Your task to perform on an android device: find photos in the google photos app Image 0: 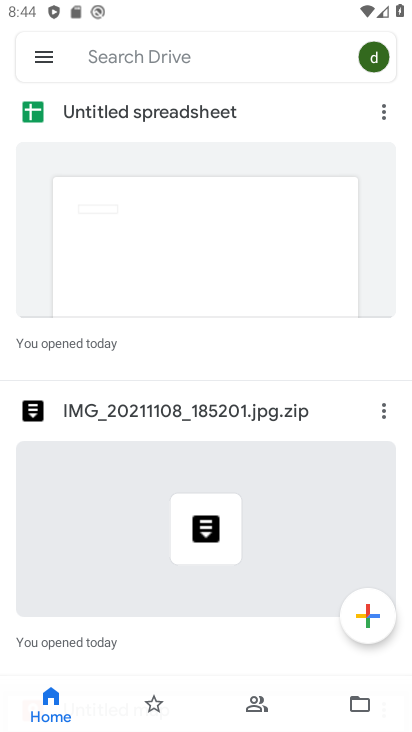
Step 0: press home button
Your task to perform on an android device: find photos in the google photos app Image 1: 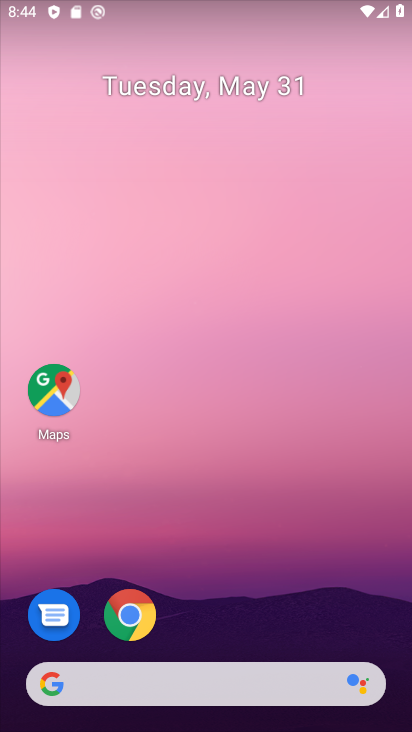
Step 1: drag from (297, 582) to (227, 151)
Your task to perform on an android device: find photos in the google photos app Image 2: 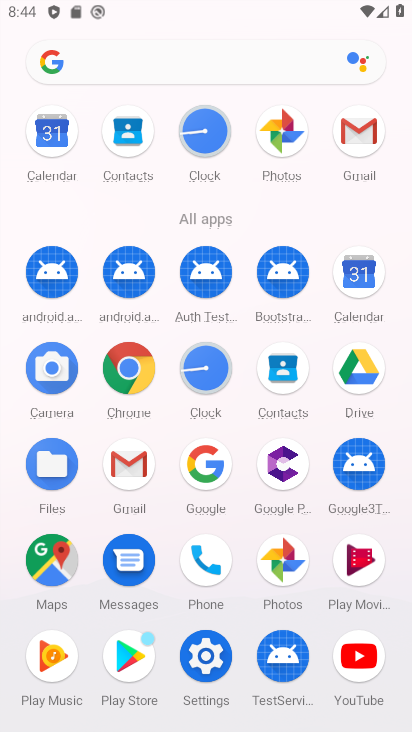
Step 2: click (290, 567)
Your task to perform on an android device: find photos in the google photos app Image 3: 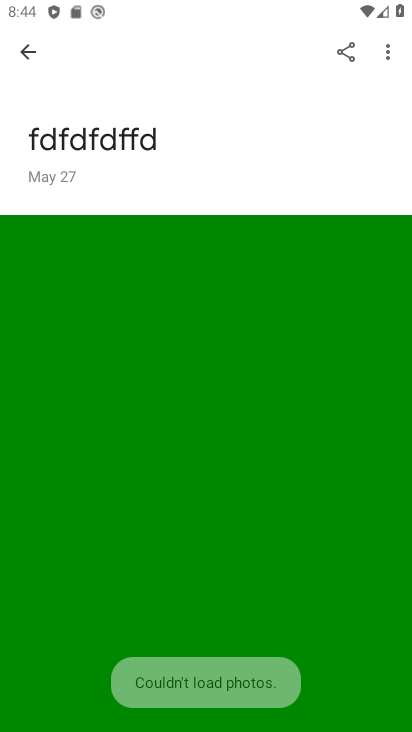
Step 3: task complete